Your task to perform on an android device: open app "Indeed Job Search" (install if not already installed) and go to login screen Image 0: 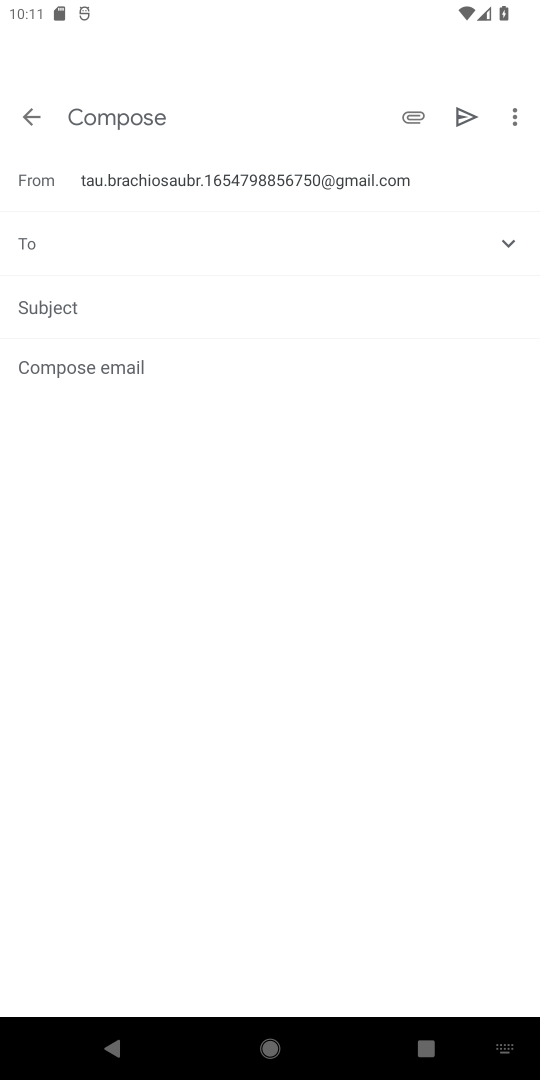
Step 0: press home button
Your task to perform on an android device: open app "Indeed Job Search" (install if not already installed) and go to login screen Image 1: 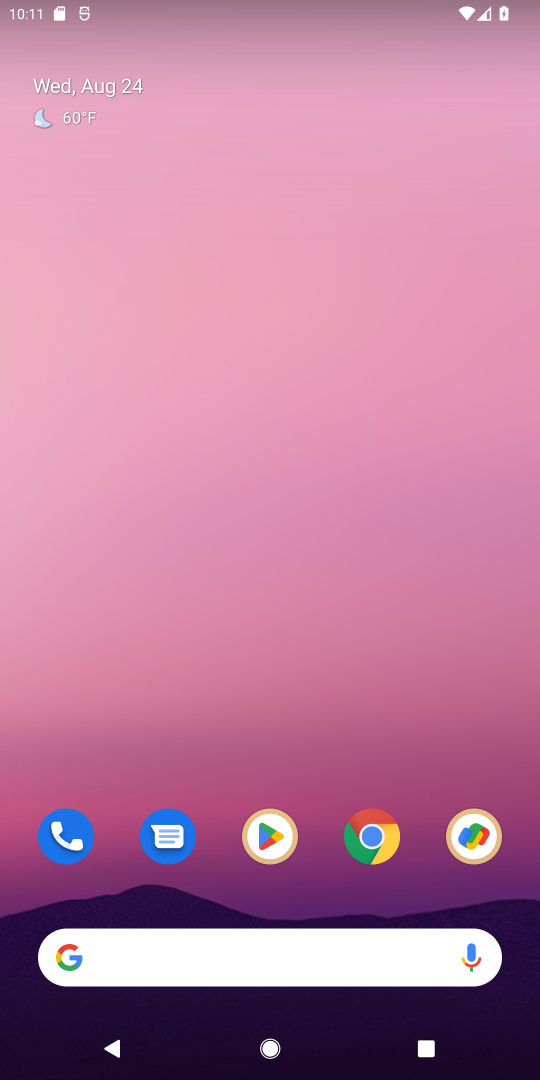
Step 1: click (281, 834)
Your task to perform on an android device: open app "Indeed Job Search" (install if not already installed) and go to login screen Image 2: 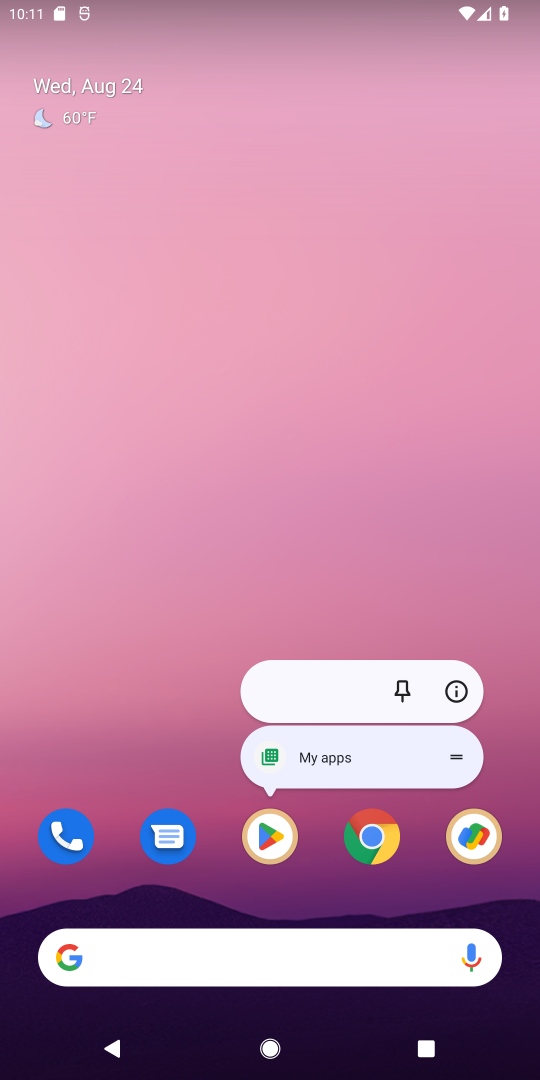
Step 2: click (281, 834)
Your task to perform on an android device: open app "Indeed Job Search" (install if not already installed) and go to login screen Image 3: 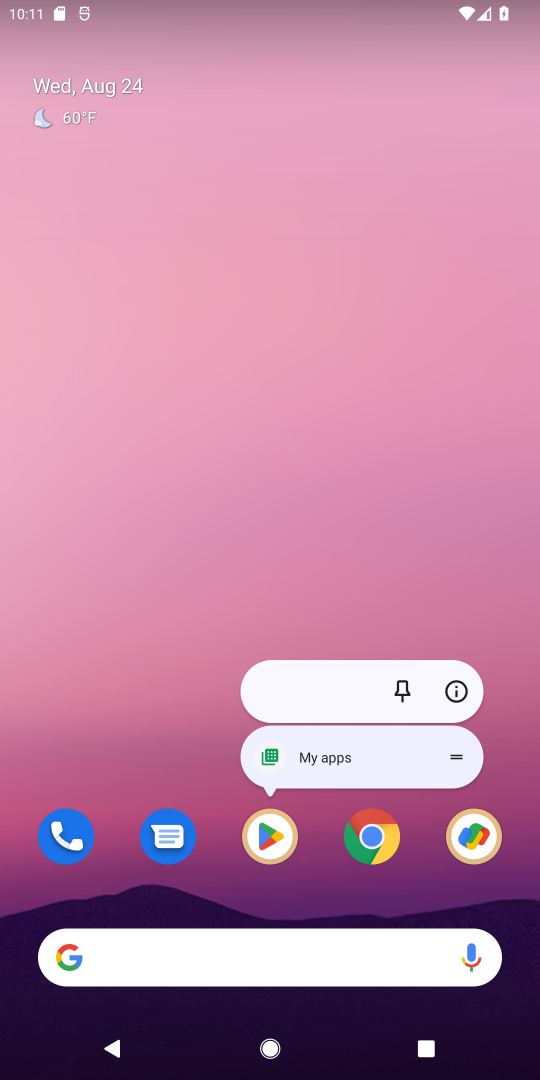
Step 3: click (281, 834)
Your task to perform on an android device: open app "Indeed Job Search" (install if not already installed) and go to login screen Image 4: 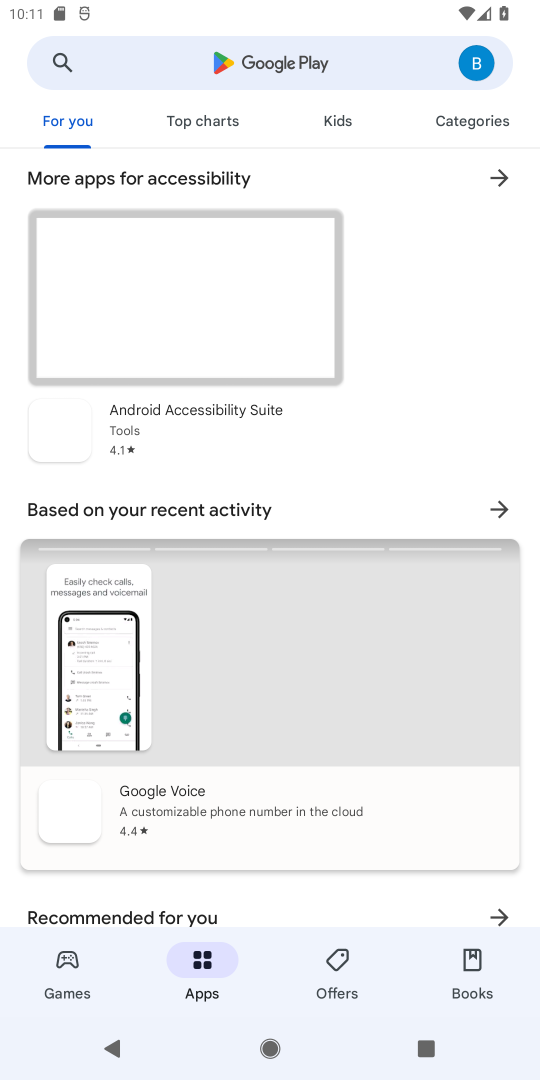
Step 4: click (239, 57)
Your task to perform on an android device: open app "Indeed Job Search" (install if not already installed) and go to login screen Image 5: 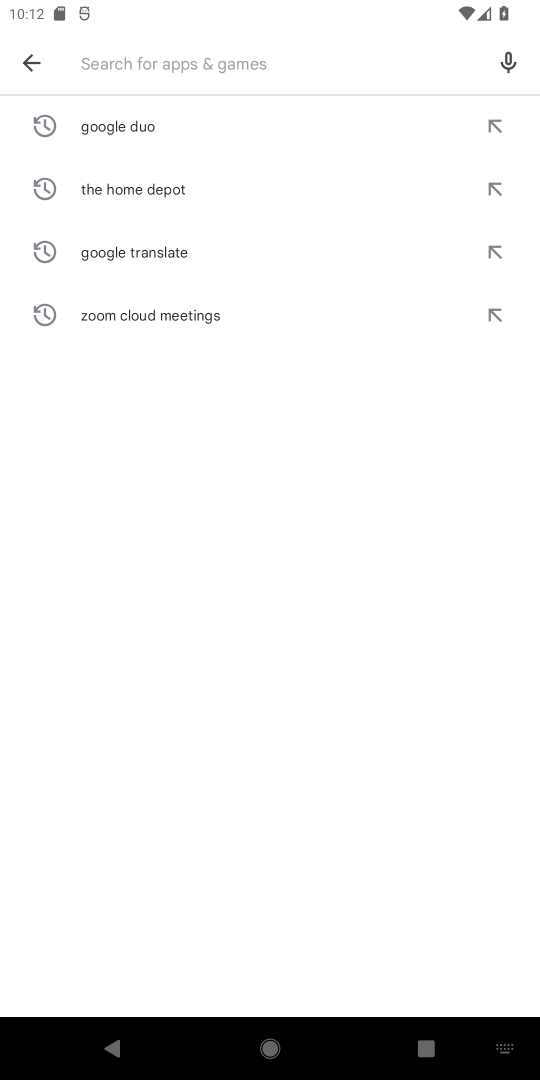
Step 5: type "Indeed Job Search"
Your task to perform on an android device: open app "Indeed Job Search" (install if not already installed) and go to login screen Image 6: 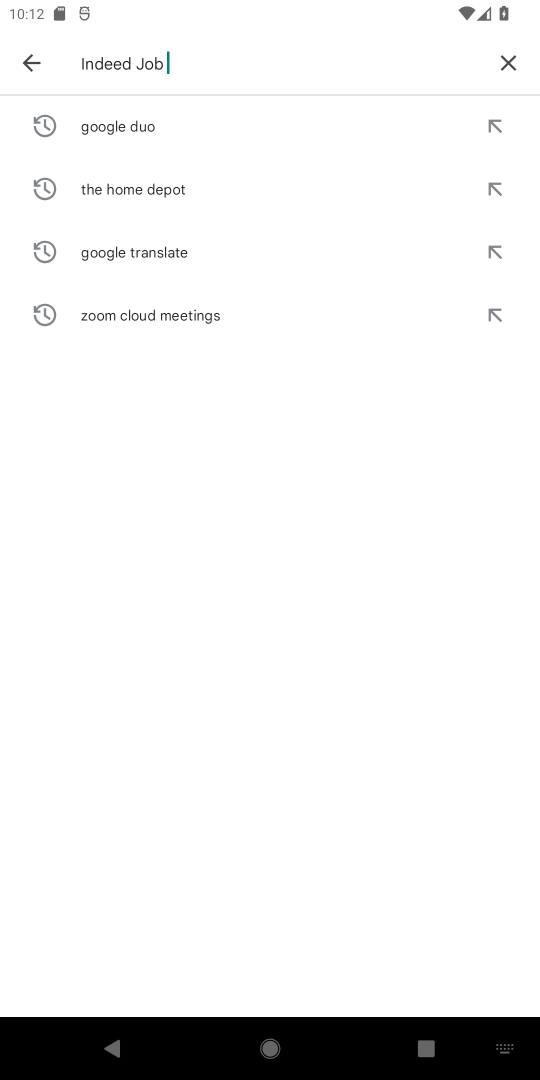
Step 6: type ""
Your task to perform on an android device: open app "Indeed Job Search" (install if not already installed) and go to login screen Image 7: 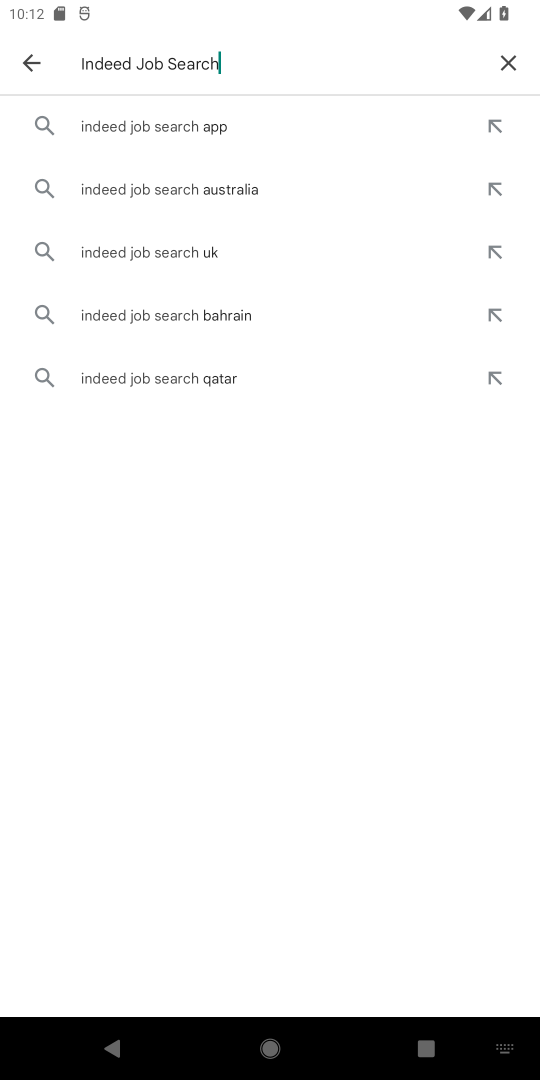
Step 7: click (193, 131)
Your task to perform on an android device: open app "Indeed Job Search" (install if not already installed) and go to login screen Image 8: 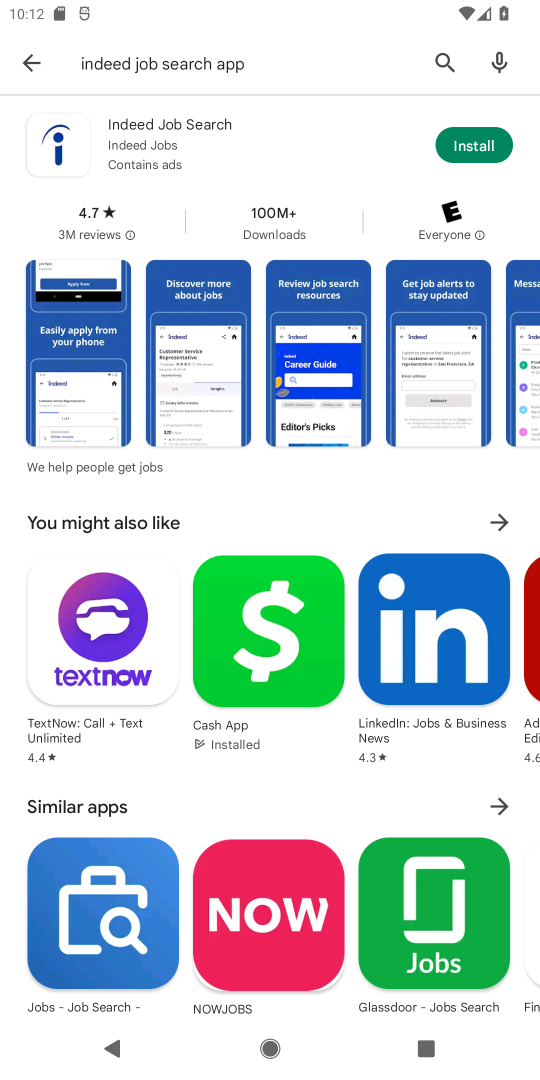
Step 8: click (465, 141)
Your task to perform on an android device: open app "Indeed Job Search" (install if not already installed) and go to login screen Image 9: 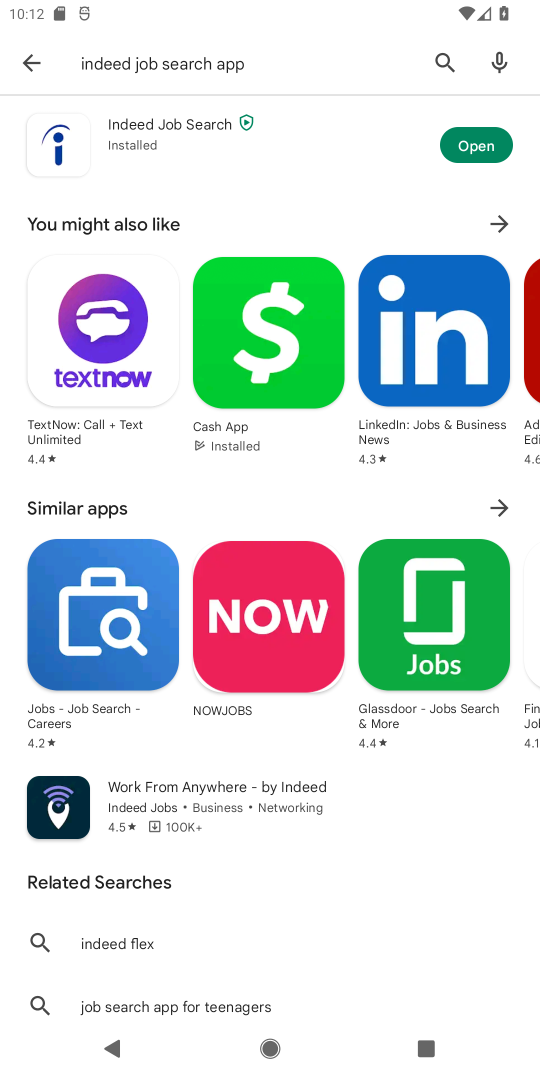
Step 9: click (471, 152)
Your task to perform on an android device: open app "Indeed Job Search" (install if not already installed) and go to login screen Image 10: 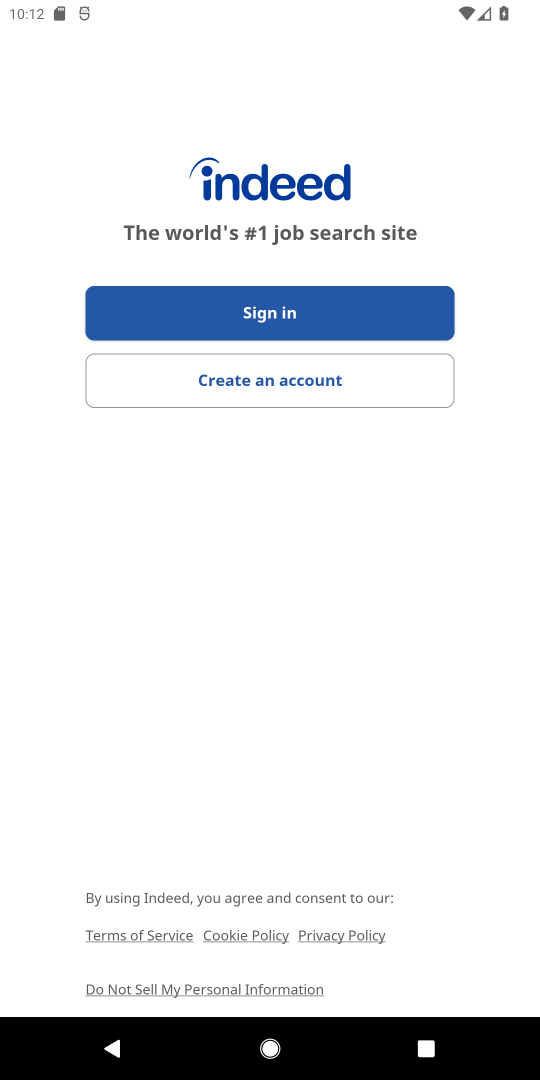
Step 10: task complete